Your task to perform on an android device: find photos in the google photos app Image 0: 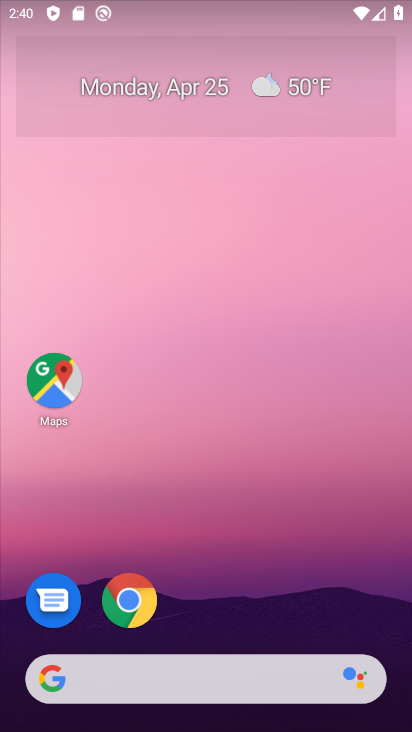
Step 0: drag from (370, 558) to (356, 182)
Your task to perform on an android device: find photos in the google photos app Image 1: 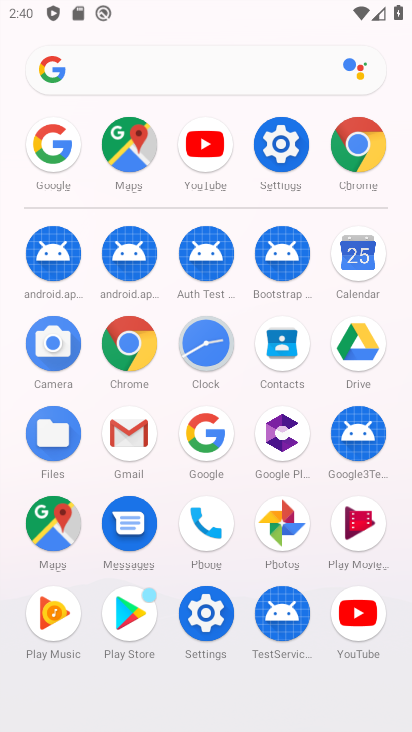
Step 1: click (275, 522)
Your task to perform on an android device: find photos in the google photos app Image 2: 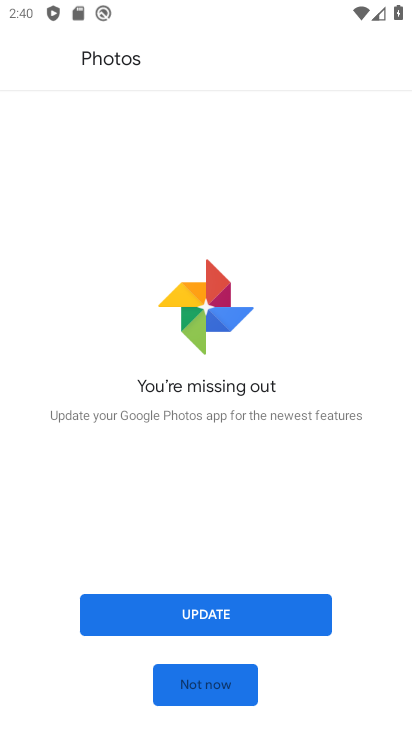
Step 2: click (309, 600)
Your task to perform on an android device: find photos in the google photos app Image 3: 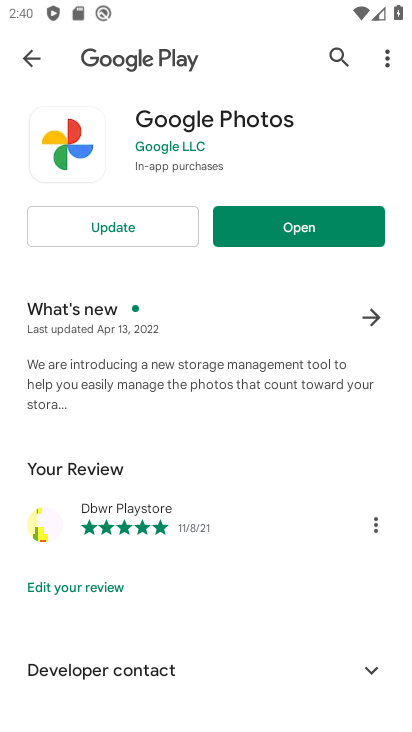
Step 3: click (127, 232)
Your task to perform on an android device: find photos in the google photos app Image 4: 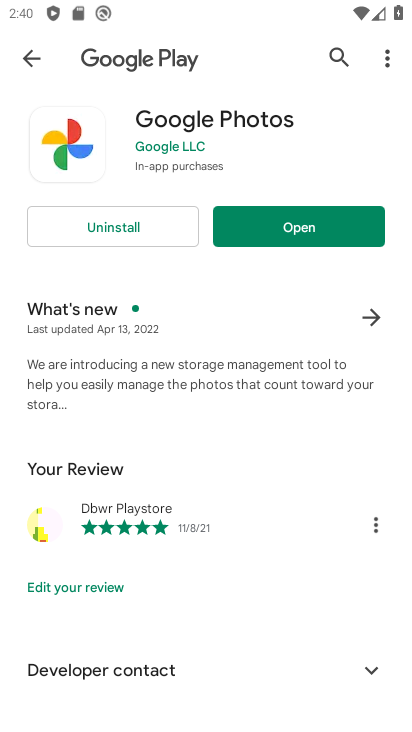
Step 4: click (250, 233)
Your task to perform on an android device: find photos in the google photos app Image 5: 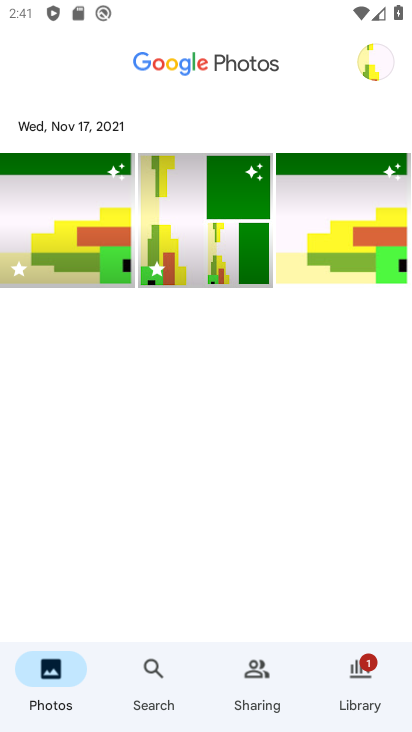
Step 5: task complete